Your task to perform on an android device: choose inbox layout in the gmail app Image 0: 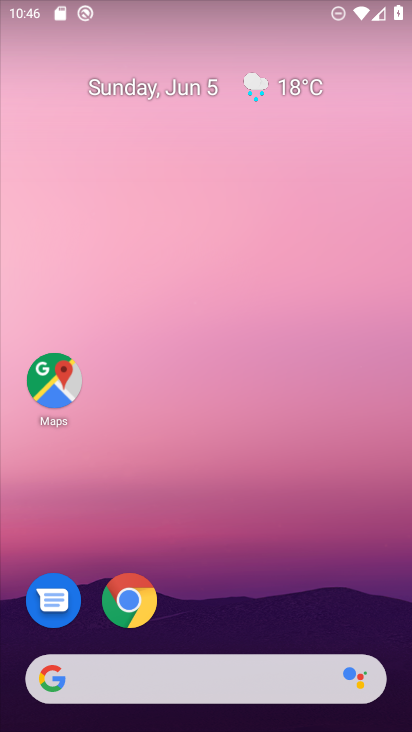
Step 0: drag from (233, 607) to (287, 9)
Your task to perform on an android device: choose inbox layout in the gmail app Image 1: 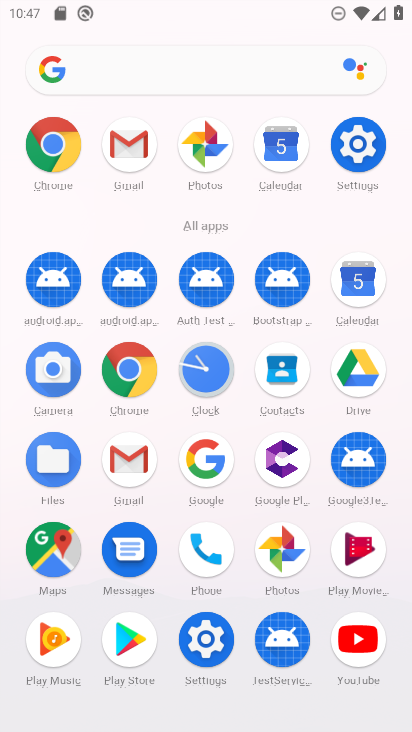
Step 1: click (117, 151)
Your task to perform on an android device: choose inbox layout in the gmail app Image 2: 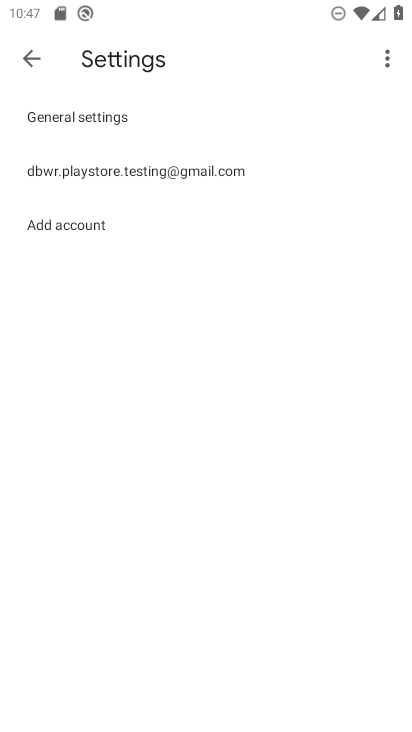
Step 2: click (27, 48)
Your task to perform on an android device: choose inbox layout in the gmail app Image 3: 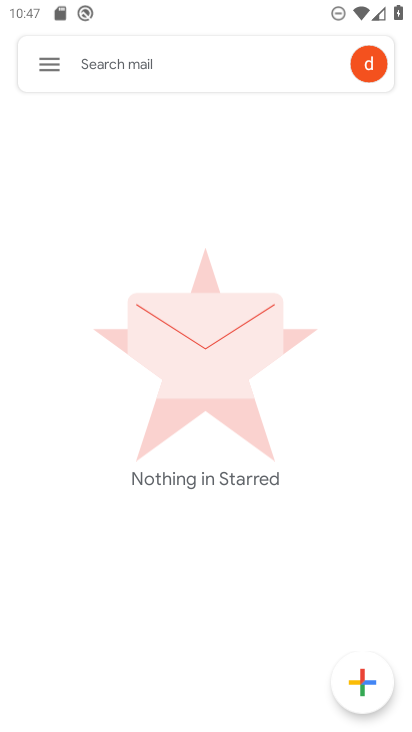
Step 3: click (34, 63)
Your task to perform on an android device: choose inbox layout in the gmail app Image 4: 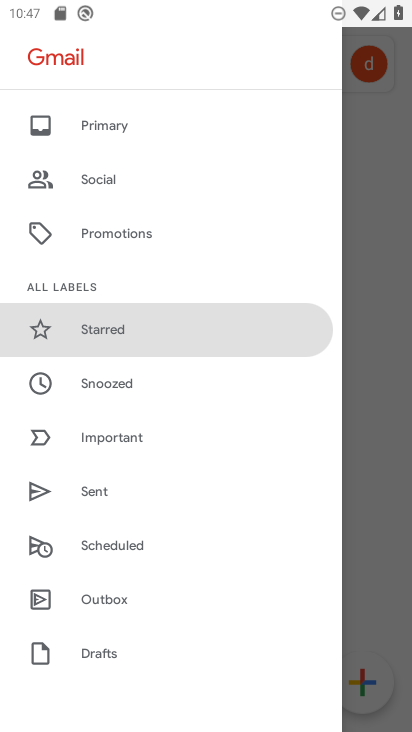
Step 4: drag from (154, 608) to (240, 7)
Your task to perform on an android device: choose inbox layout in the gmail app Image 5: 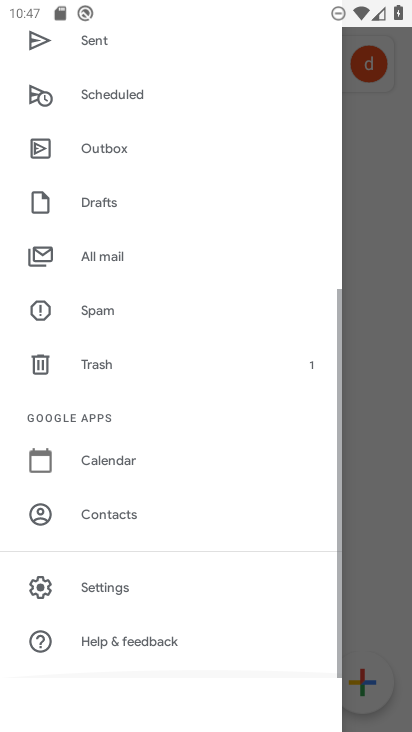
Step 5: click (158, 584)
Your task to perform on an android device: choose inbox layout in the gmail app Image 6: 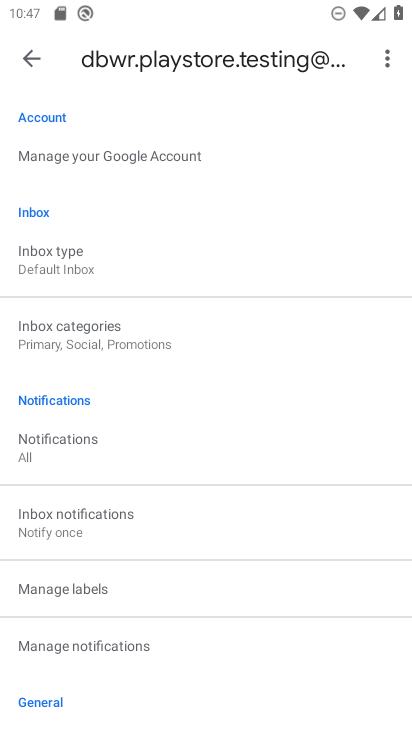
Step 6: click (55, 270)
Your task to perform on an android device: choose inbox layout in the gmail app Image 7: 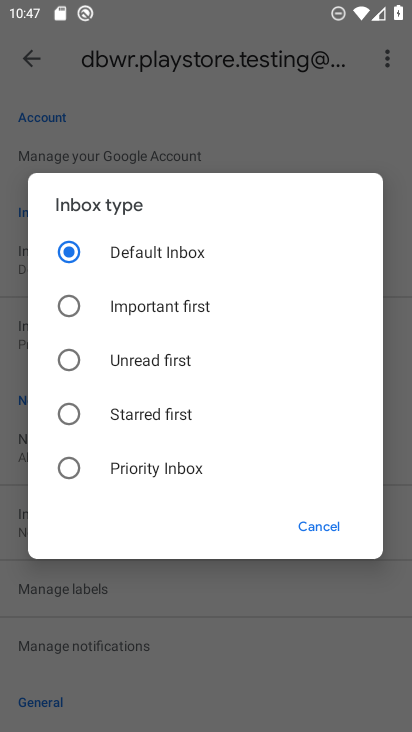
Step 7: task complete